Your task to perform on an android device: set the stopwatch Image 0: 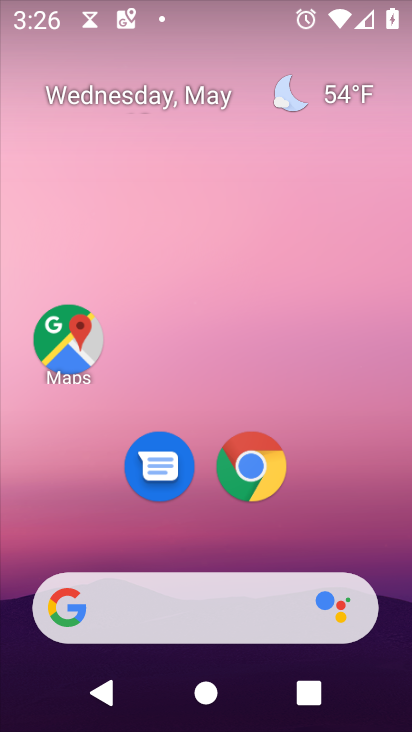
Step 0: drag from (382, 551) to (377, 95)
Your task to perform on an android device: set the stopwatch Image 1: 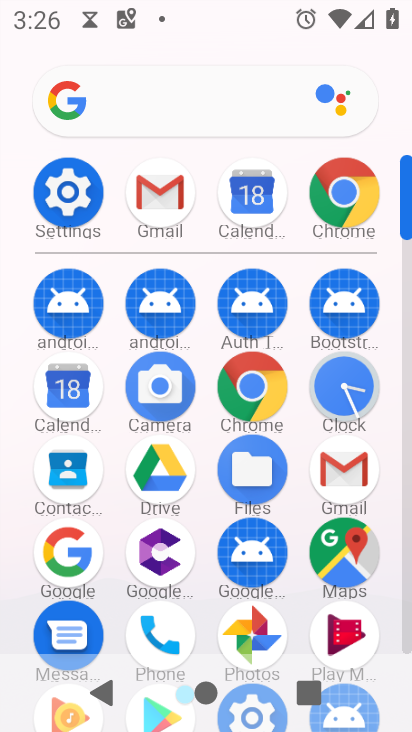
Step 1: click (343, 366)
Your task to perform on an android device: set the stopwatch Image 2: 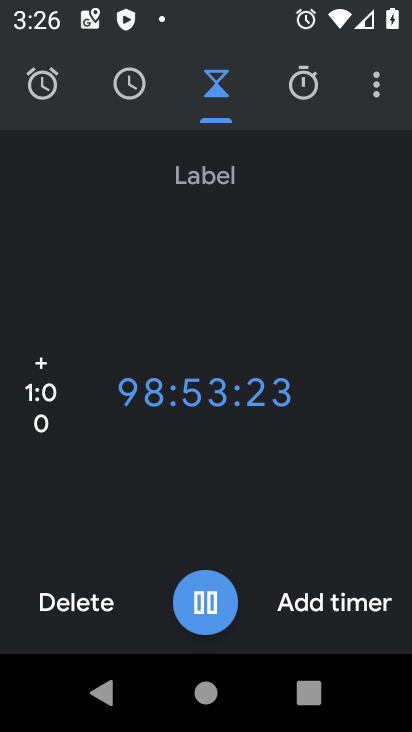
Step 2: click (315, 105)
Your task to perform on an android device: set the stopwatch Image 3: 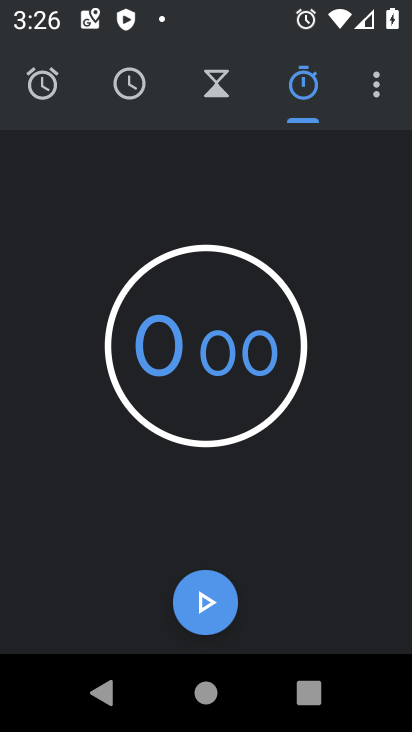
Step 3: click (198, 619)
Your task to perform on an android device: set the stopwatch Image 4: 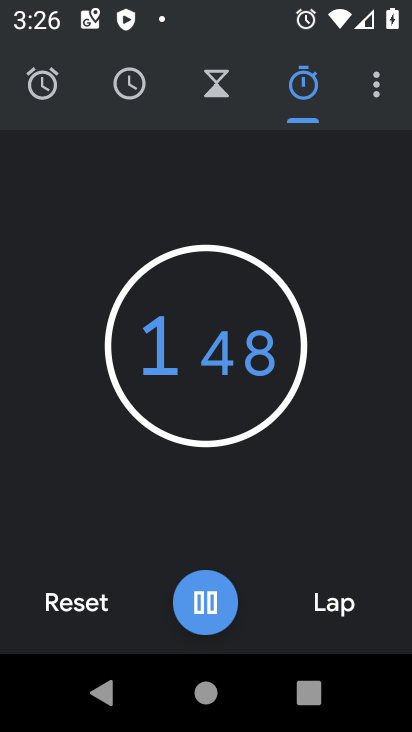
Step 4: task complete